Your task to perform on an android device: Open internet settings Image 0: 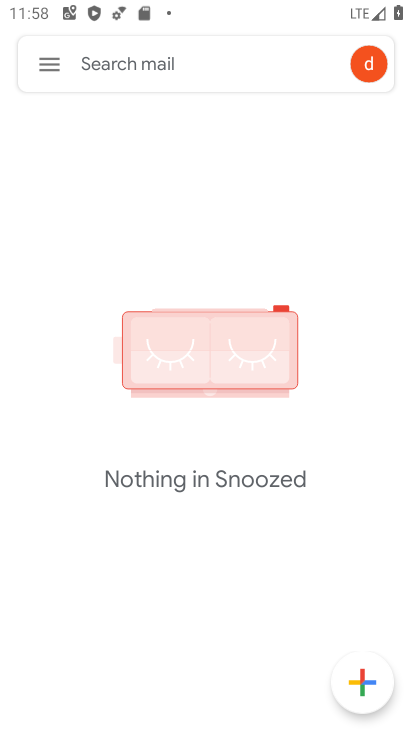
Step 0: press home button
Your task to perform on an android device: Open internet settings Image 1: 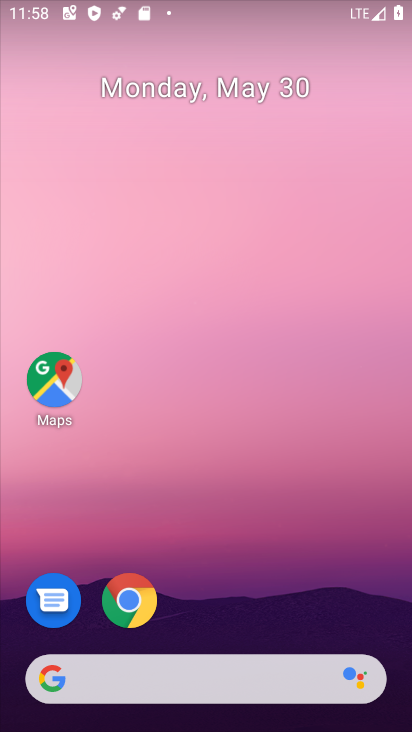
Step 1: drag from (233, 723) to (233, 578)
Your task to perform on an android device: Open internet settings Image 2: 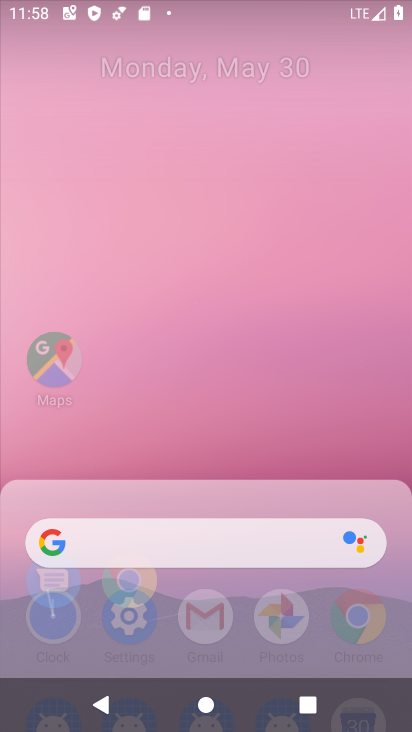
Step 2: click (233, 73)
Your task to perform on an android device: Open internet settings Image 3: 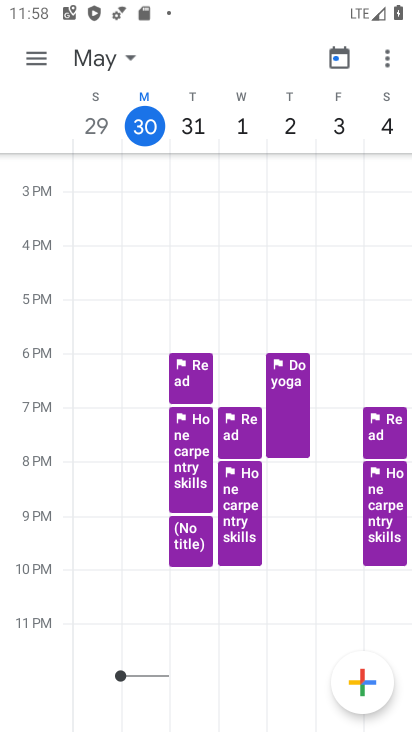
Step 3: press home button
Your task to perform on an android device: Open internet settings Image 4: 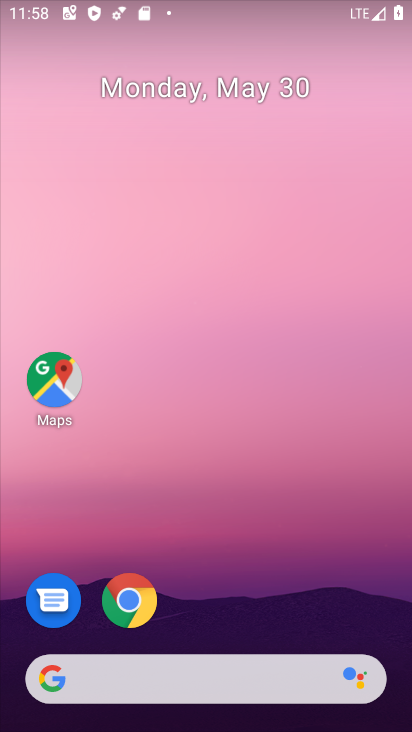
Step 4: drag from (224, 719) to (224, 381)
Your task to perform on an android device: Open internet settings Image 5: 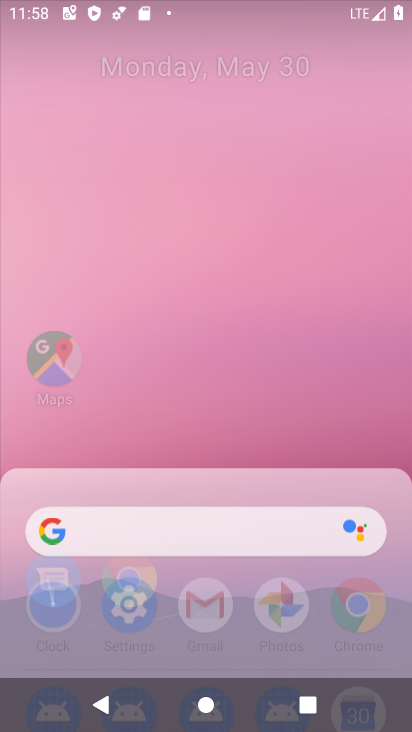
Step 5: click (220, 129)
Your task to perform on an android device: Open internet settings Image 6: 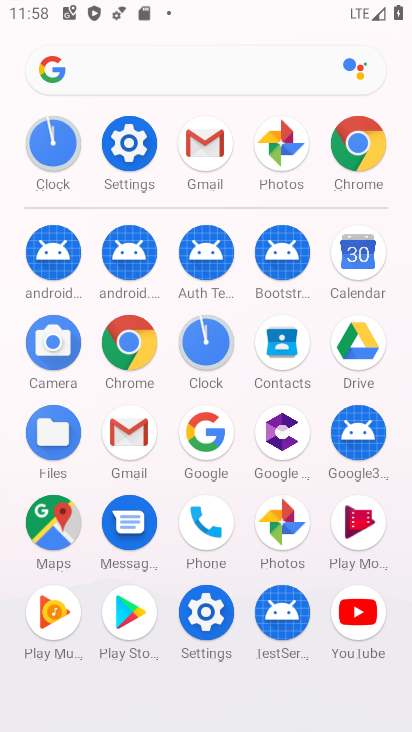
Step 6: click (125, 138)
Your task to perform on an android device: Open internet settings Image 7: 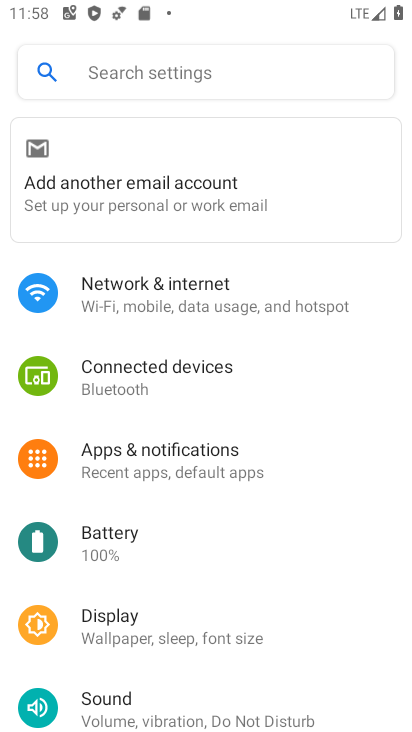
Step 7: click (147, 293)
Your task to perform on an android device: Open internet settings Image 8: 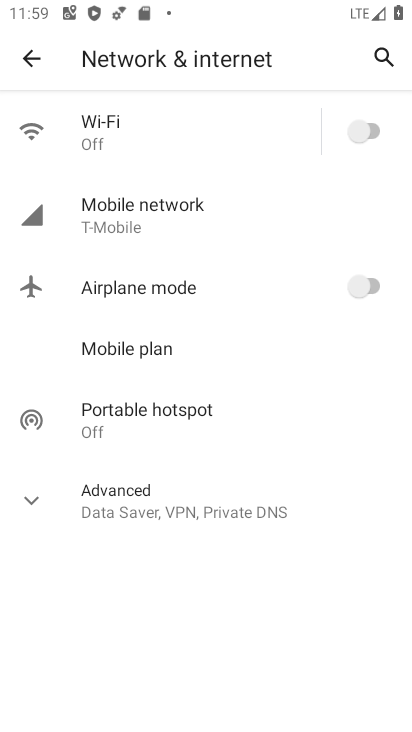
Step 8: task complete